Your task to perform on an android device: turn on priority inbox in the gmail app Image 0: 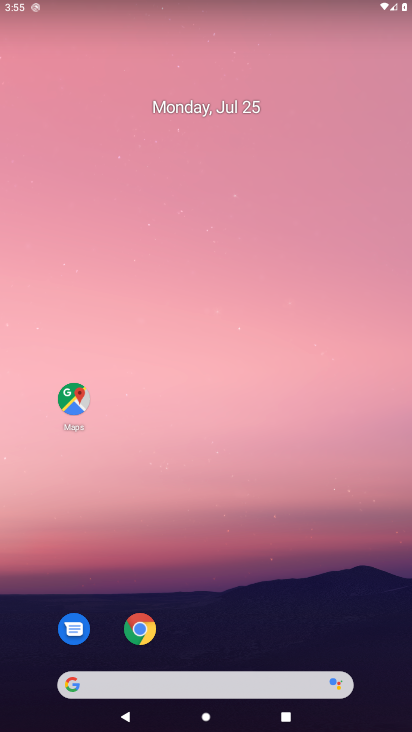
Step 0: click (0, 662)
Your task to perform on an android device: turn on priority inbox in the gmail app Image 1: 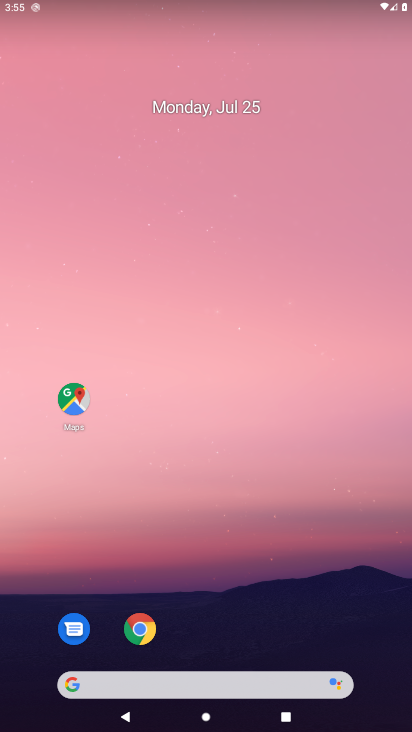
Step 1: drag from (12, 702) to (267, 51)
Your task to perform on an android device: turn on priority inbox in the gmail app Image 2: 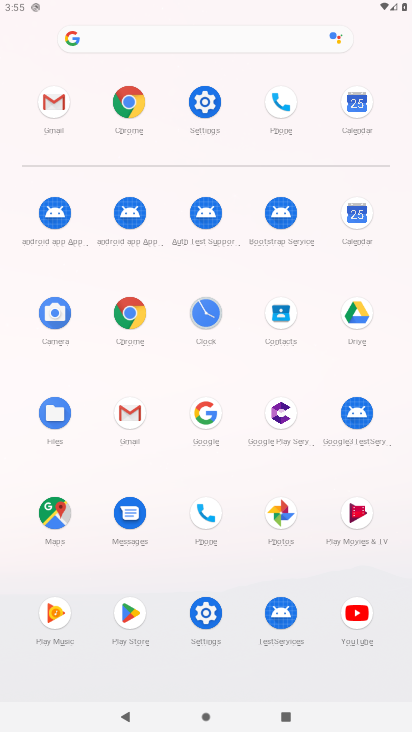
Step 2: click (136, 416)
Your task to perform on an android device: turn on priority inbox in the gmail app Image 3: 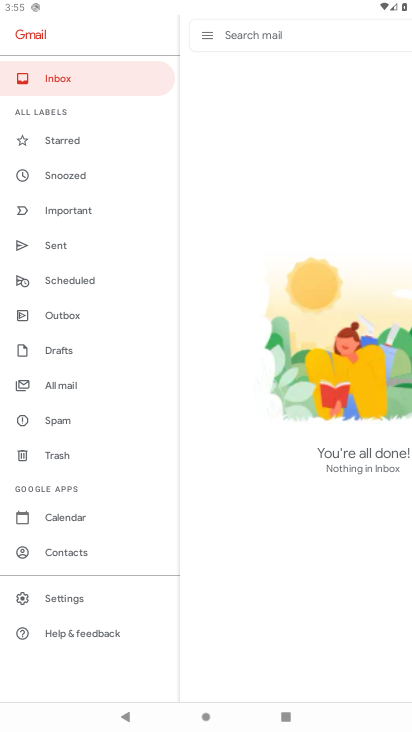
Step 3: click (65, 600)
Your task to perform on an android device: turn on priority inbox in the gmail app Image 4: 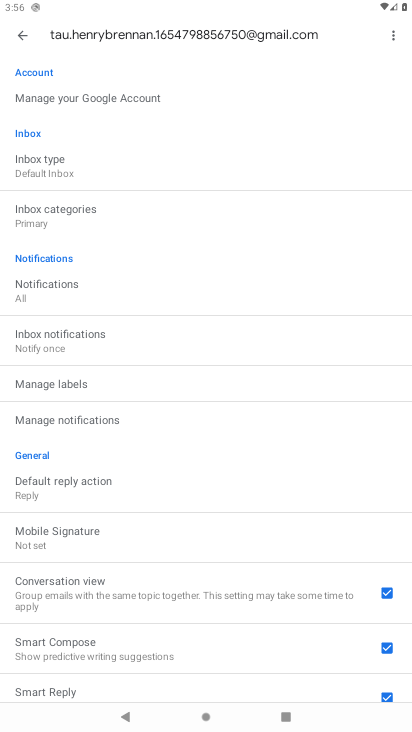
Step 4: click (72, 167)
Your task to perform on an android device: turn on priority inbox in the gmail app Image 5: 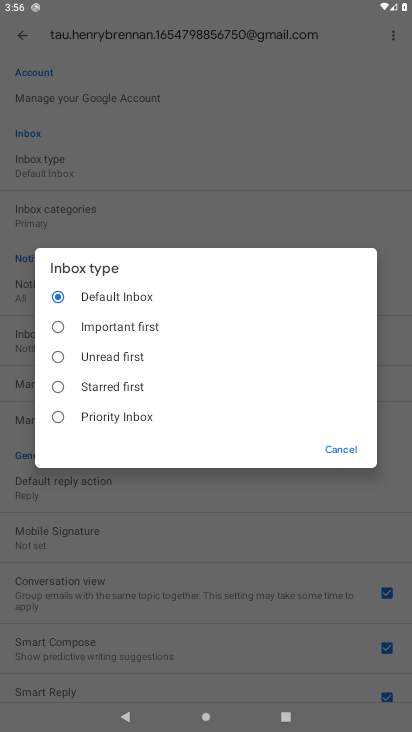
Step 5: click (71, 417)
Your task to perform on an android device: turn on priority inbox in the gmail app Image 6: 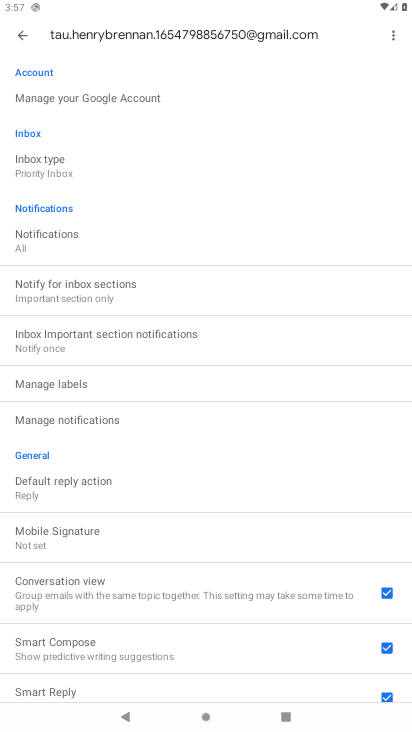
Step 6: task complete